Your task to perform on an android device: toggle javascript in the chrome app Image 0: 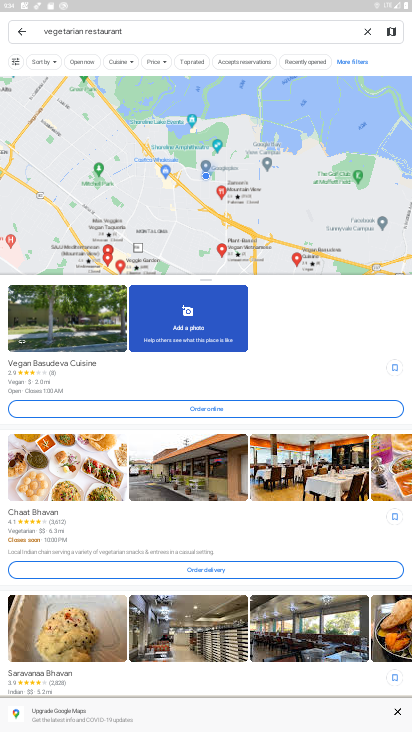
Step 0: press home button
Your task to perform on an android device: toggle javascript in the chrome app Image 1: 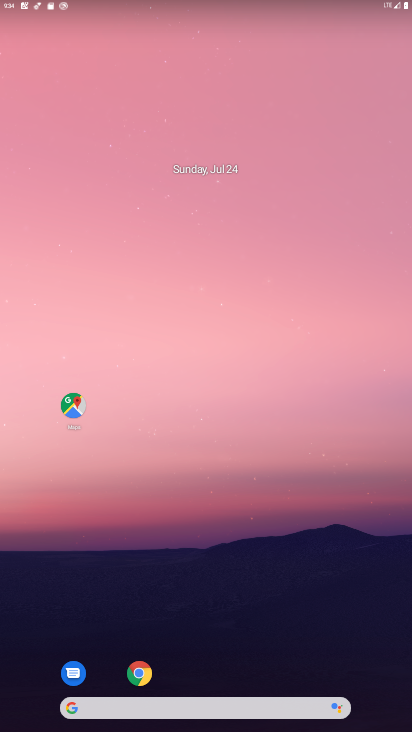
Step 1: drag from (261, 667) to (285, 106)
Your task to perform on an android device: toggle javascript in the chrome app Image 2: 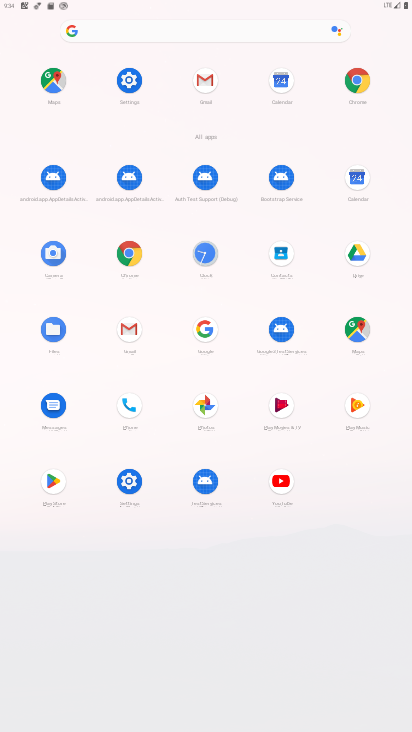
Step 2: click (129, 261)
Your task to perform on an android device: toggle javascript in the chrome app Image 3: 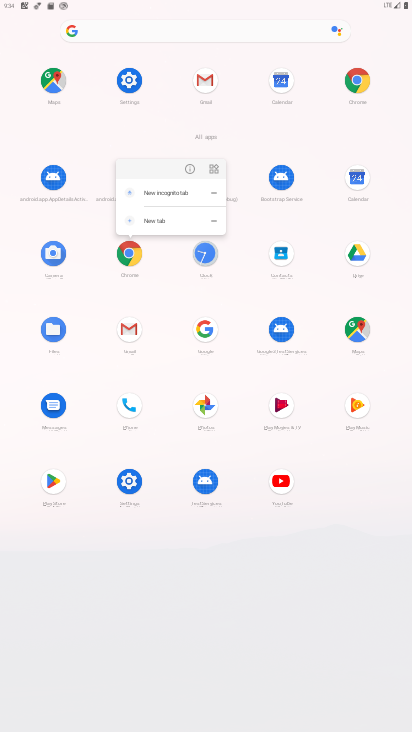
Step 3: click (124, 269)
Your task to perform on an android device: toggle javascript in the chrome app Image 4: 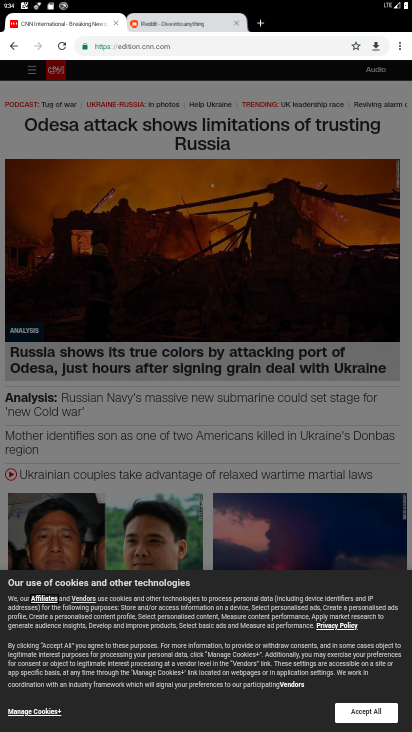
Step 4: click (399, 48)
Your task to perform on an android device: toggle javascript in the chrome app Image 5: 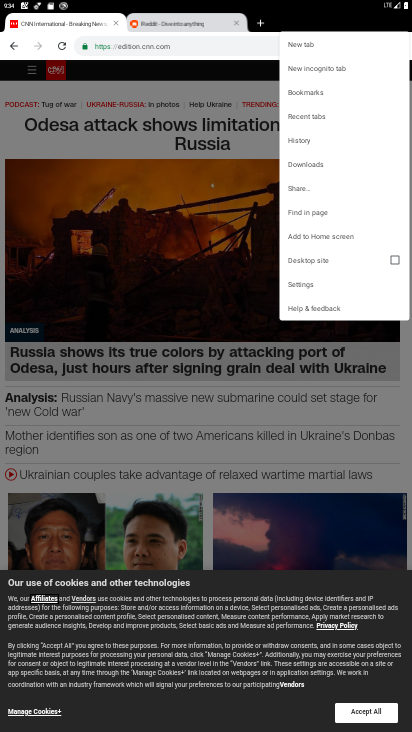
Step 5: click (305, 286)
Your task to perform on an android device: toggle javascript in the chrome app Image 6: 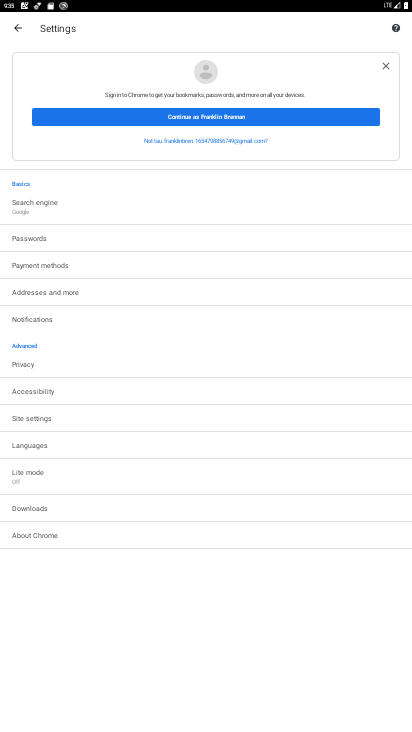
Step 6: click (42, 421)
Your task to perform on an android device: toggle javascript in the chrome app Image 7: 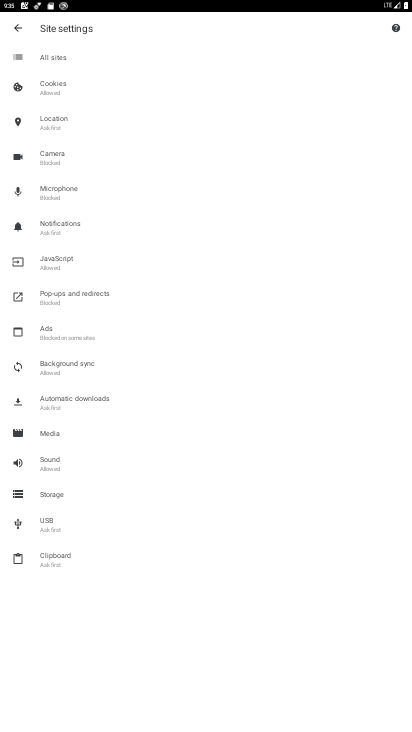
Step 7: click (63, 265)
Your task to perform on an android device: toggle javascript in the chrome app Image 8: 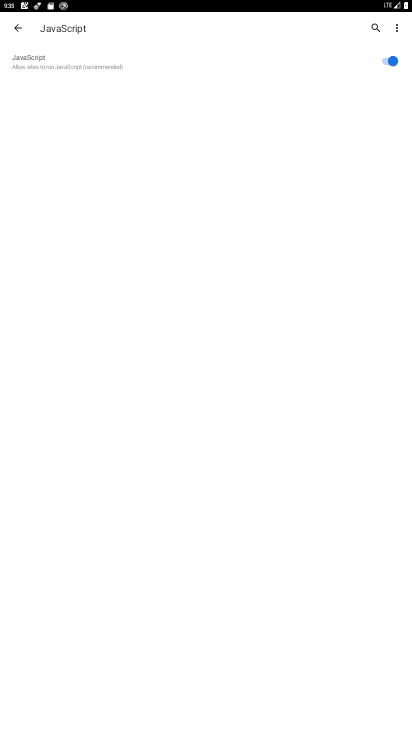
Step 8: click (375, 56)
Your task to perform on an android device: toggle javascript in the chrome app Image 9: 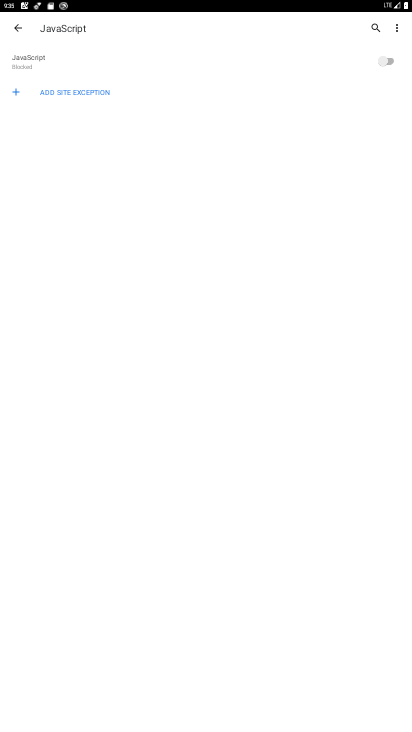
Step 9: task complete